Your task to perform on an android device: See recent photos Image 0: 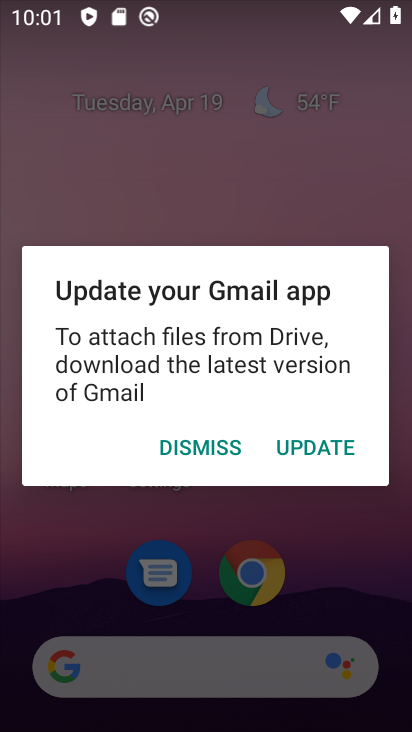
Step 0: press home button
Your task to perform on an android device: See recent photos Image 1: 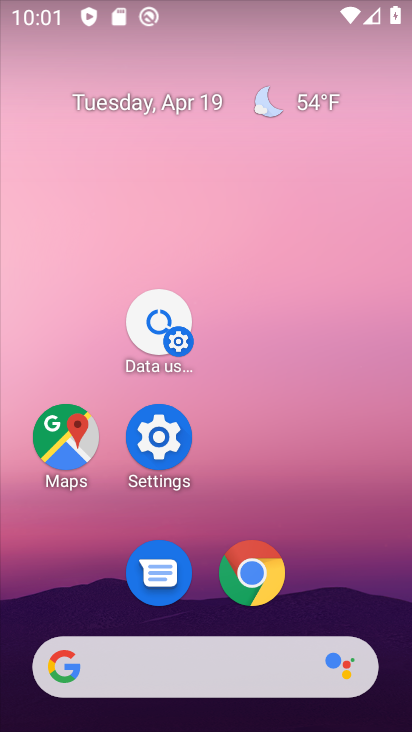
Step 1: drag from (380, 594) to (399, 15)
Your task to perform on an android device: See recent photos Image 2: 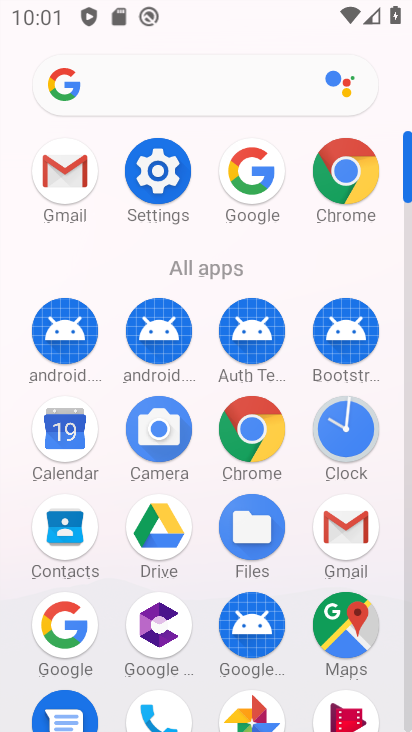
Step 2: click (255, 713)
Your task to perform on an android device: See recent photos Image 3: 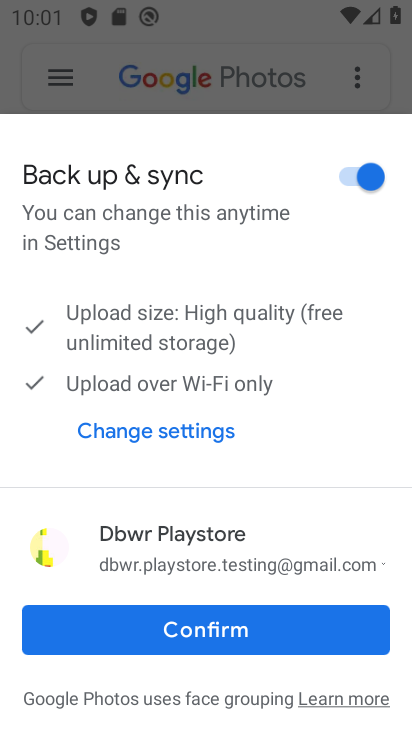
Step 3: click (230, 652)
Your task to perform on an android device: See recent photos Image 4: 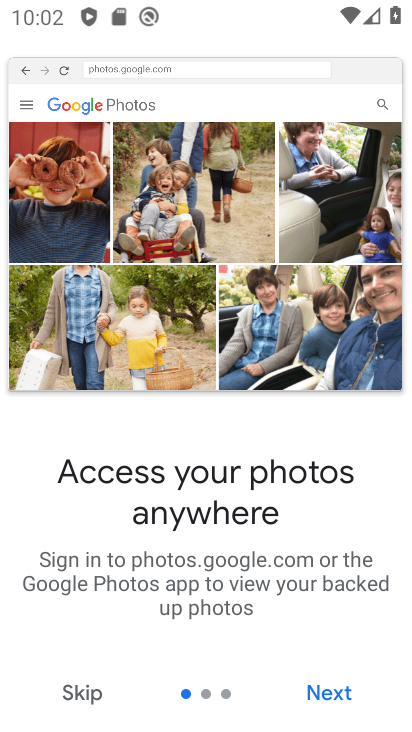
Step 4: click (75, 691)
Your task to perform on an android device: See recent photos Image 5: 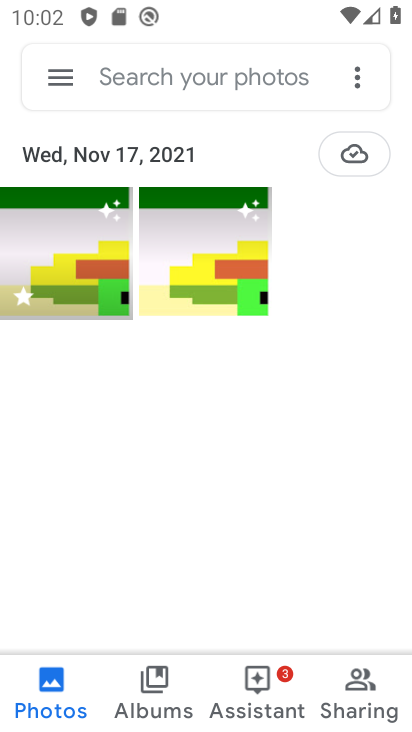
Step 5: click (51, 76)
Your task to perform on an android device: See recent photos Image 6: 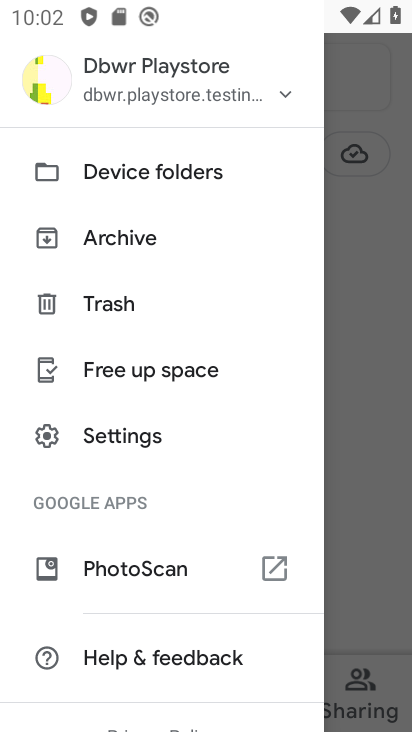
Step 6: drag from (106, 527) to (116, 222)
Your task to perform on an android device: See recent photos Image 7: 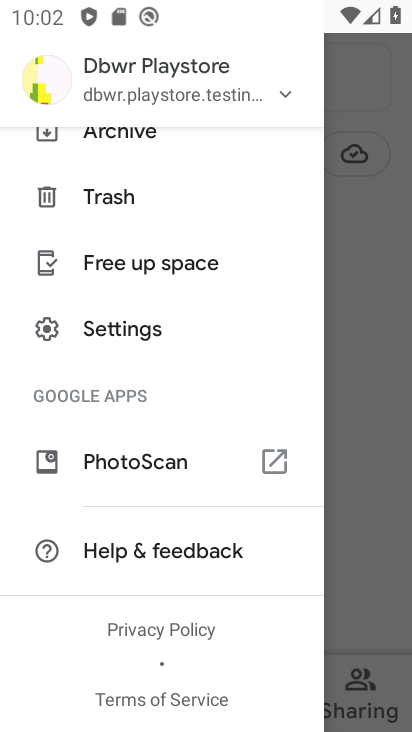
Step 7: drag from (162, 690) to (154, 417)
Your task to perform on an android device: See recent photos Image 8: 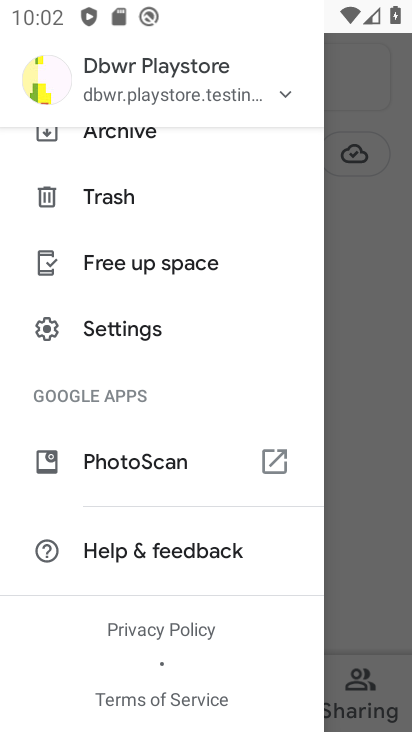
Step 8: click (345, 242)
Your task to perform on an android device: See recent photos Image 9: 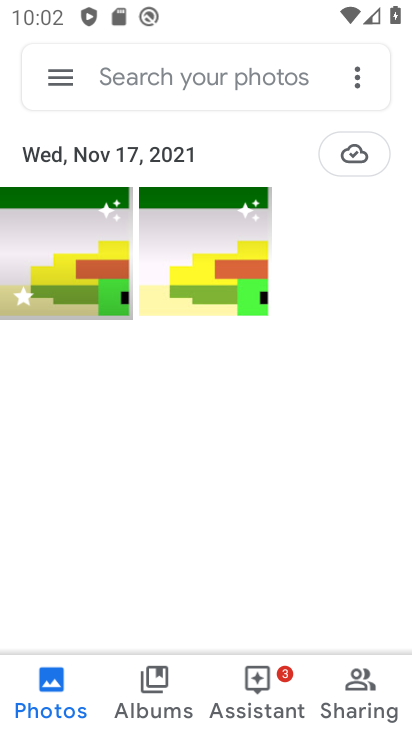
Step 9: click (359, 73)
Your task to perform on an android device: See recent photos Image 10: 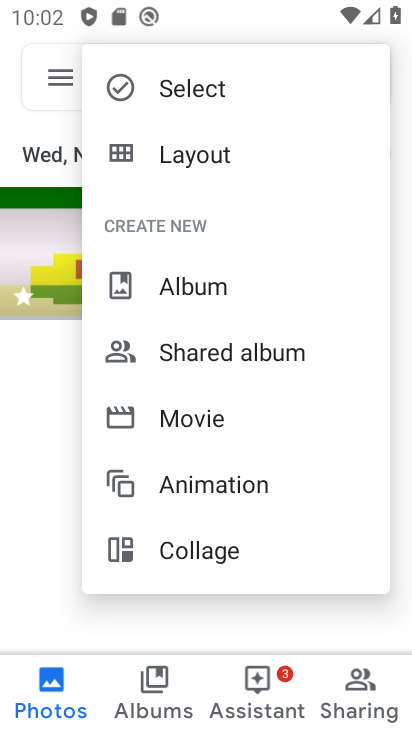
Step 10: task complete